Your task to perform on an android device: Set the phone to "Do not disturb". Image 0: 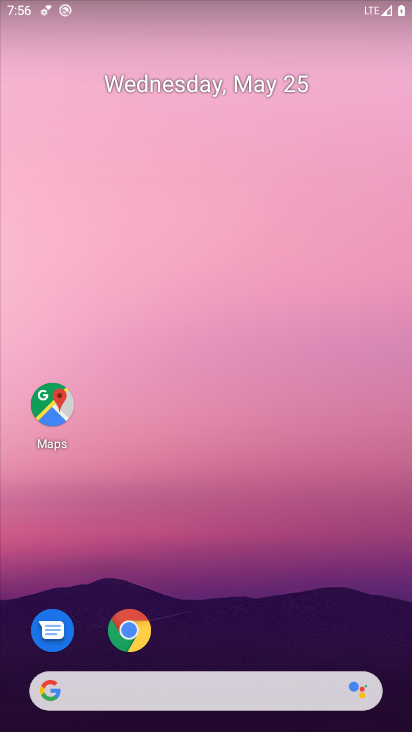
Step 0: drag from (189, 670) to (252, 319)
Your task to perform on an android device: Set the phone to "Do not disturb". Image 1: 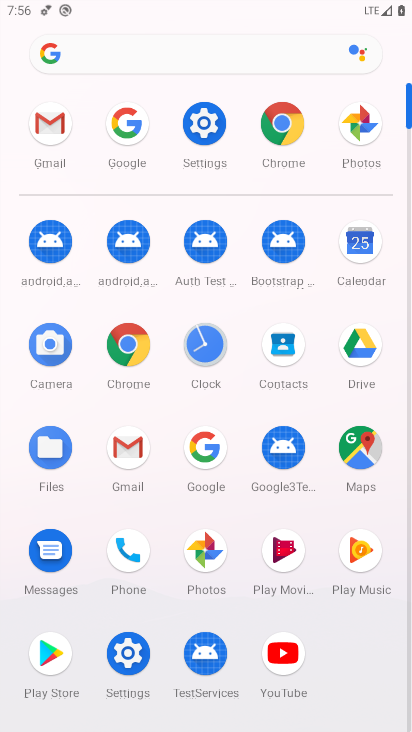
Step 1: click (208, 131)
Your task to perform on an android device: Set the phone to "Do not disturb". Image 2: 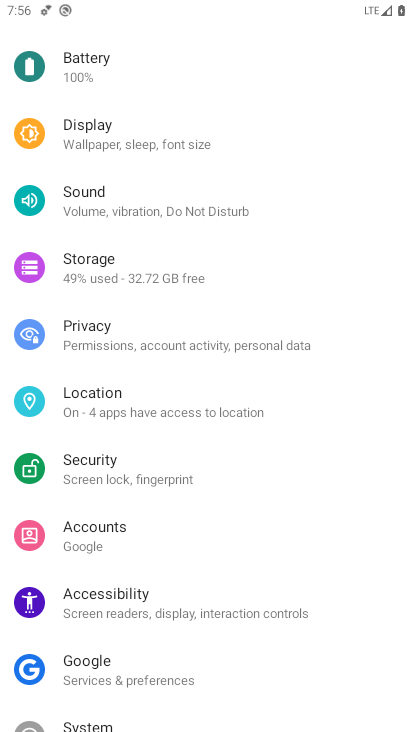
Step 2: drag from (175, 84) to (190, 515)
Your task to perform on an android device: Set the phone to "Do not disturb". Image 3: 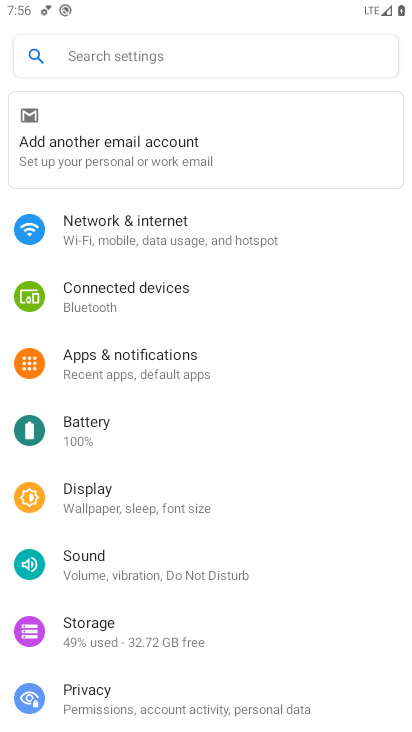
Step 3: click (140, 233)
Your task to perform on an android device: Set the phone to "Do not disturb". Image 4: 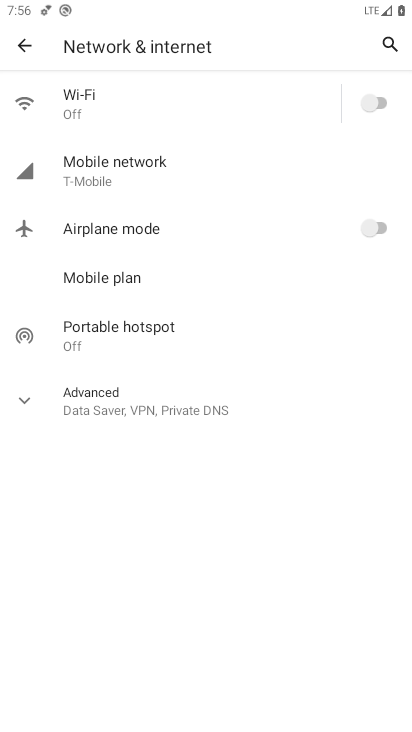
Step 4: press back button
Your task to perform on an android device: Set the phone to "Do not disturb". Image 5: 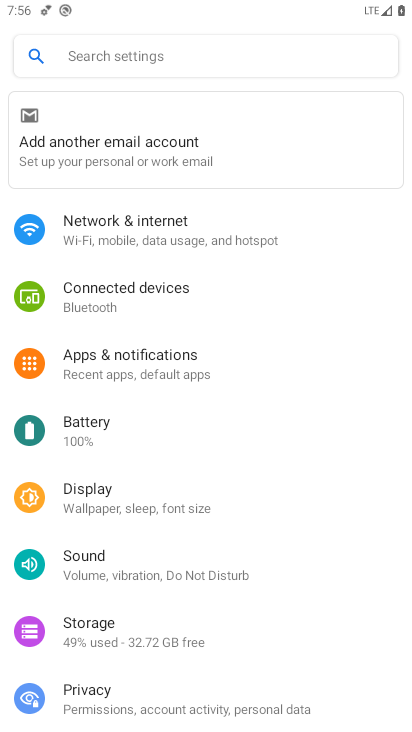
Step 5: drag from (133, 671) to (187, 374)
Your task to perform on an android device: Set the phone to "Do not disturb". Image 6: 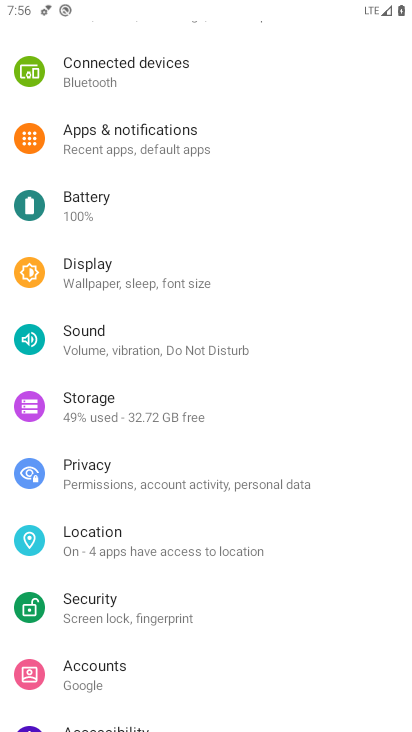
Step 6: click (172, 349)
Your task to perform on an android device: Set the phone to "Do not disturb". Image 7: 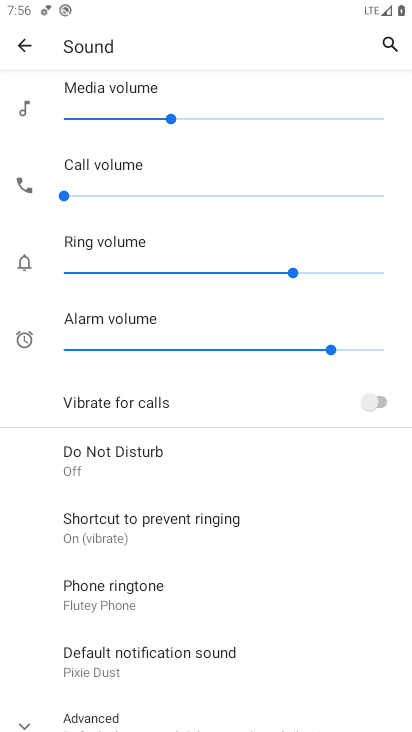
Step 7: click (133, 460)
Your task to perform on an android device: Set the phone to "Do not disturb". Image 8: 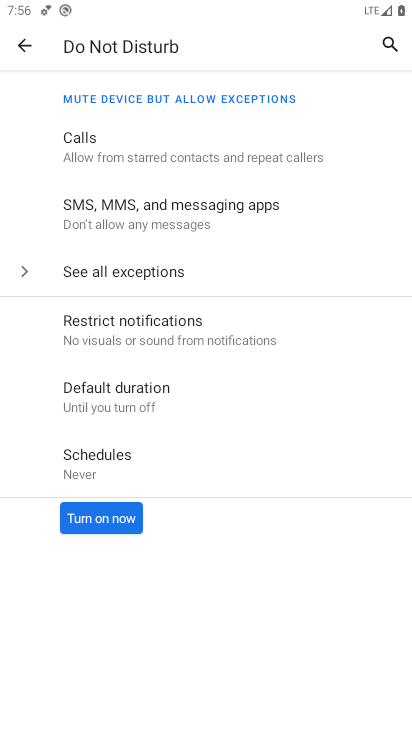
Step 8: click (111, 524)
Your task to perform on an android device: Set the phone to "Do not disturb". Image 9: 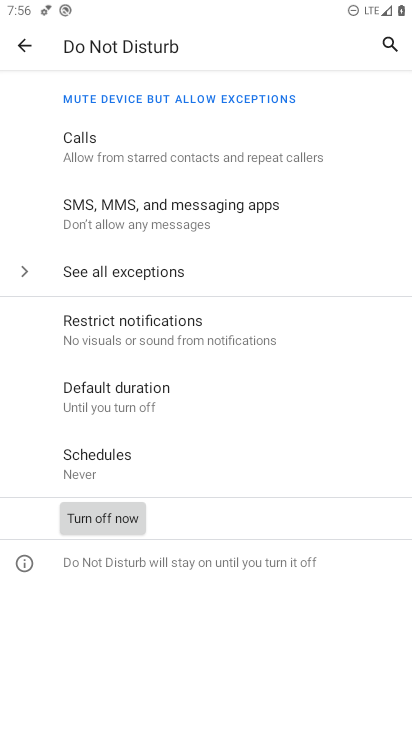
Step 9: task complete